Your task to perform on an android device: Go to Android settings Image 0: 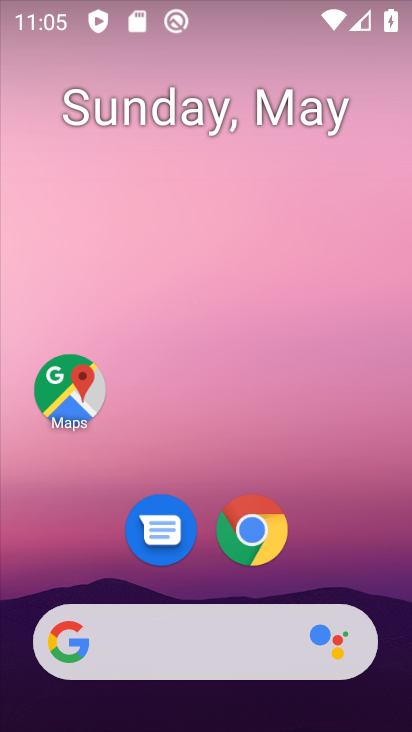
Step 0: drag from (180, 519) to (250, 13)
Your task to perform on an android device: Go to Android settings Image 1: 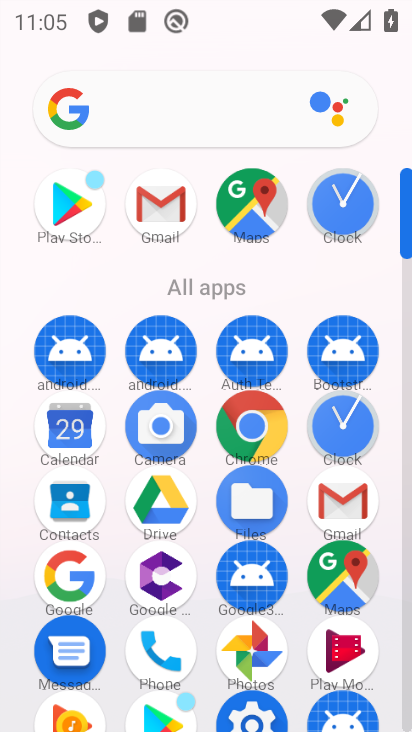
Step 1: click (250, 700)
Your task to perform on an android device: Go to Android settings Image 2: 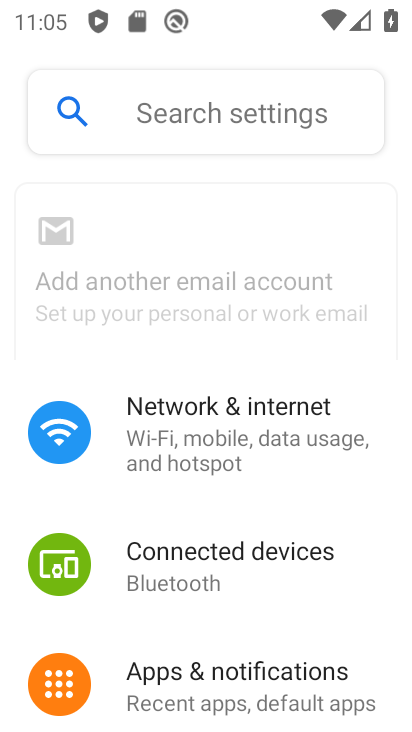
Step 2: drag from (193, 614) to (357, 11)
Your task to perform on an android device: Go to Android settings Image 3: 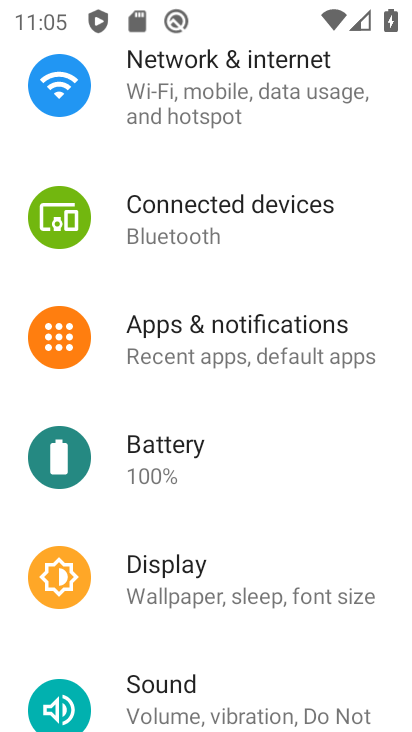
Step 3: drag from (207, 693) to (278, 112)
Your task to perform on an android device: Go to Android settings Image 4: 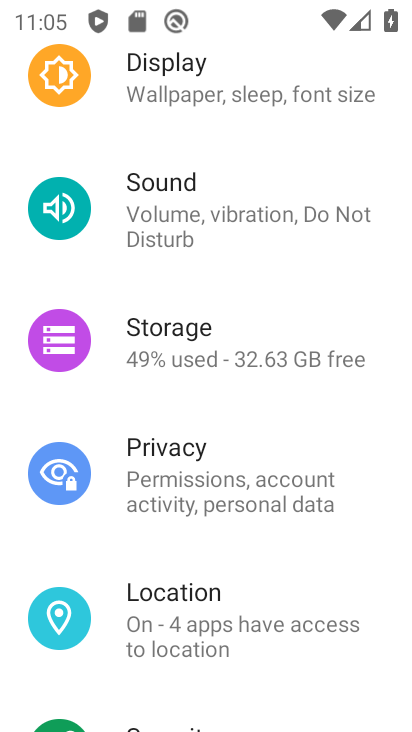
Step 4: drag from (221, 613) to (336, 0)
Your task to perform on an android device: Go to Android settings Image 5: 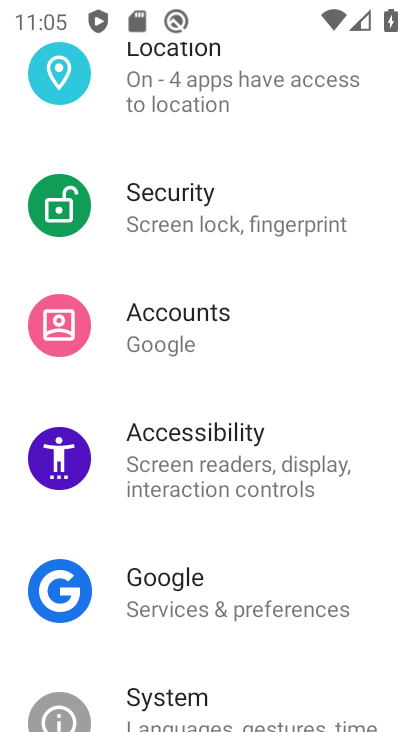
Step 5: drag from (156, 674) to (237, 22)
Your task to perform on an android device: Go to Android settings Image 6: 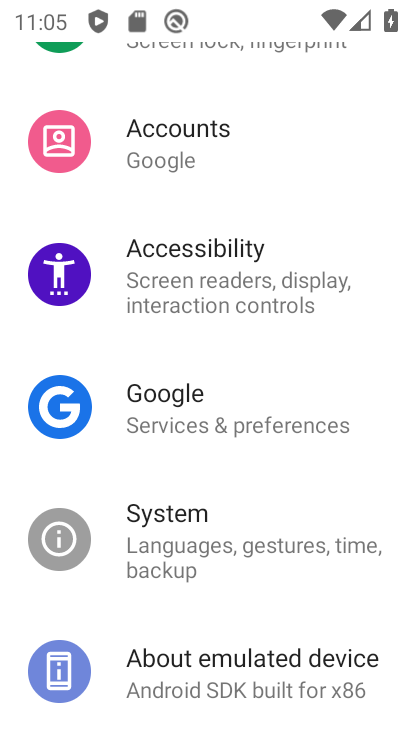
Step 6: click (203, 678)
Your task to perform on an android device: Go to Android settings Image 7: 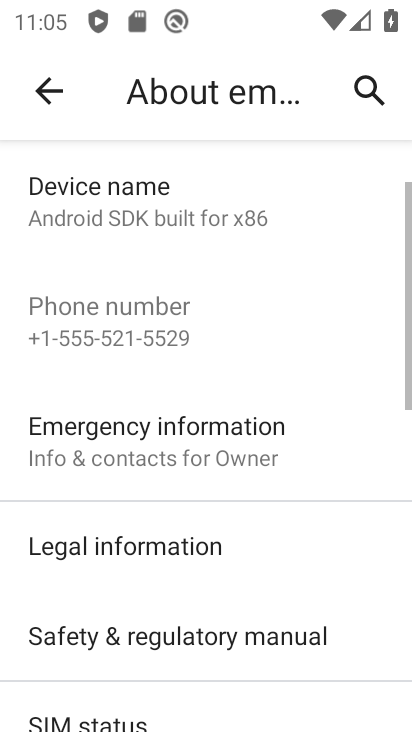
Step 7: drag from (201, 657) to (288, 108)
Your task to perform on an android device: Go to Android settings Image 8: 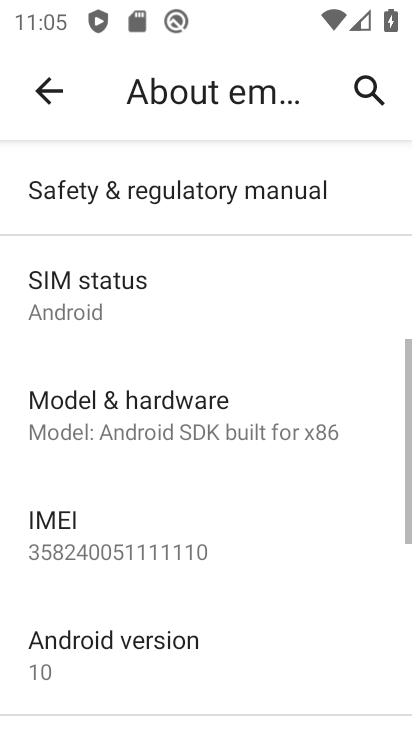
Step 8: click (157, 658)
Your task to perform on an android device: Go to Android settings Image 9: 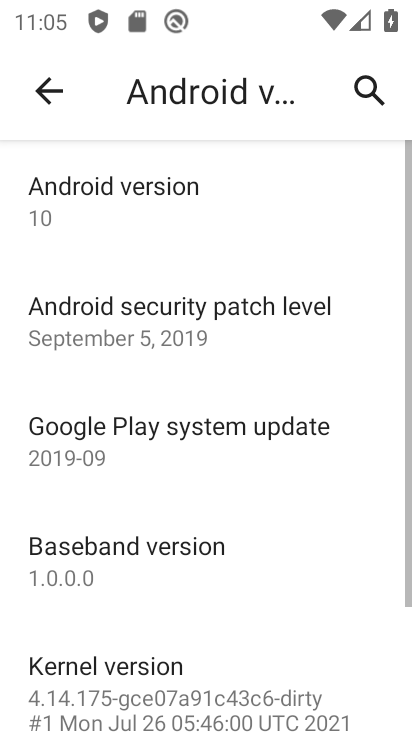
Step 9: task complete